Your task to perform on an android device: Go to calendar. Show me events next week Image 0: 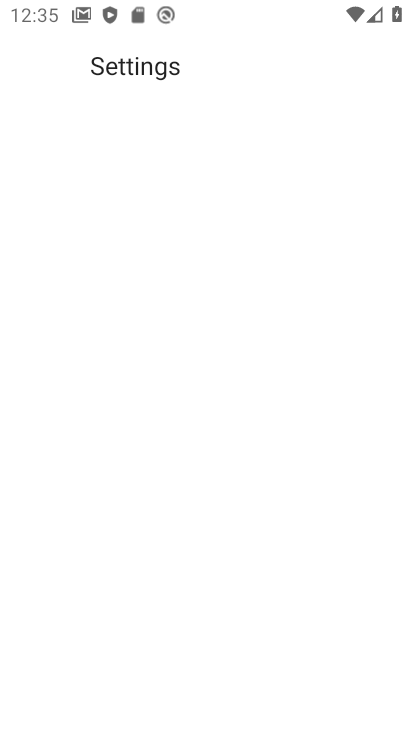
Step 0: drag from (312, 603) to (251, 147)
Your task to perform on an android device: Go to calendar. Show me events next week Image 1: 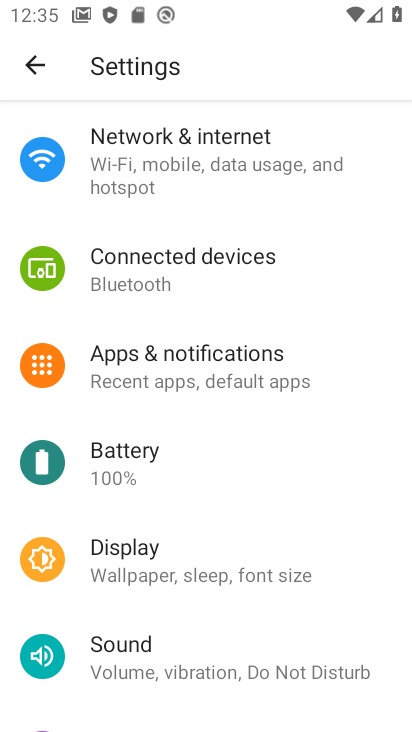
Step 1: press home button
Your task to perform on an android device: Go to calendar. Show me events next week Image 2: 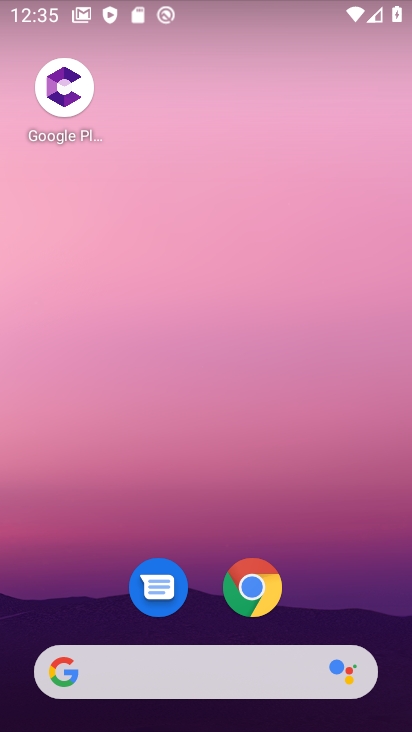
Step 2: drag from (214, 124) to (196, 61)
Your task to perform on an android device: Go to calendar. Show me events next week Image 3: 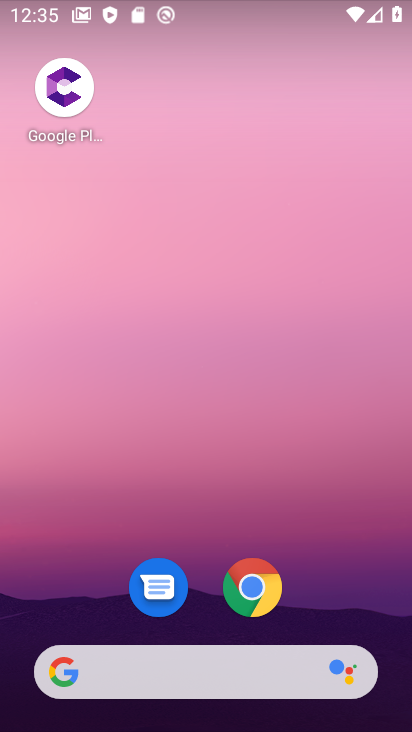
Step 3: drag from (236, 270) to (222, 221)
Your task to perform on an android device: Go to calendar. Show me events next week Image 4: 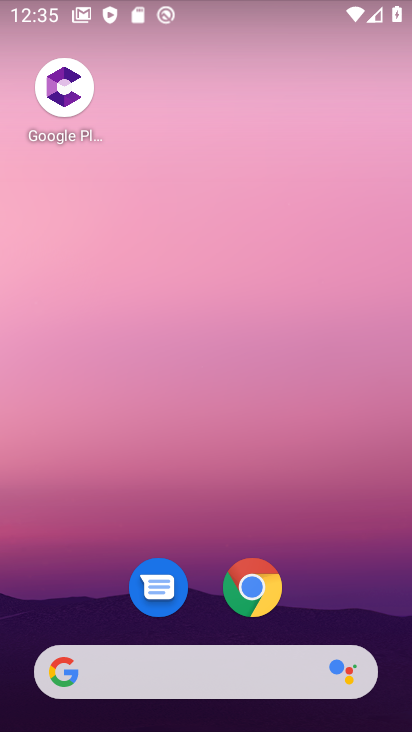
Step 4: drag from (312, 555) to (235, 18)
Your task to perform on an android device: Go to calendar. Show me events next week Image 5: 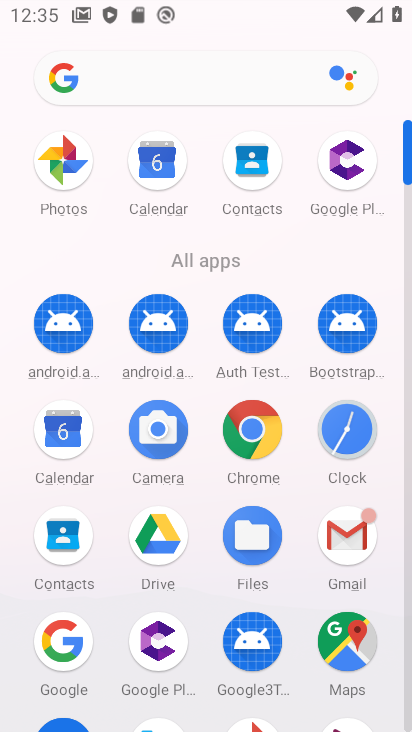
Step 5: click (66, 467)
Your task to perform on an android device: Go to calendar. Show me events next week Image 6: 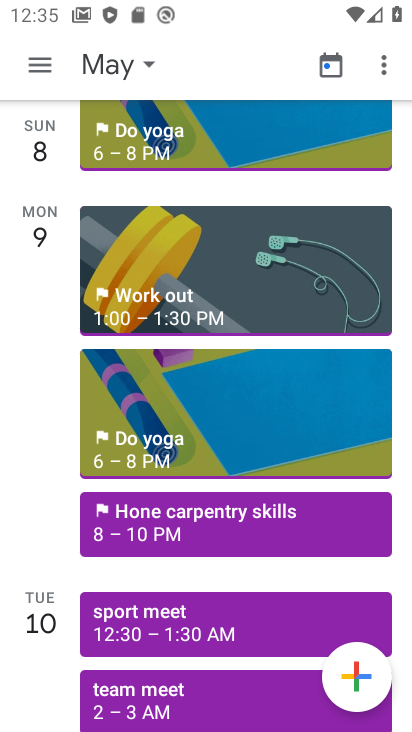
Step 6: click (40, 56)
Your task to perform on an android device: Go to calendar. Show me events next week Image 7: 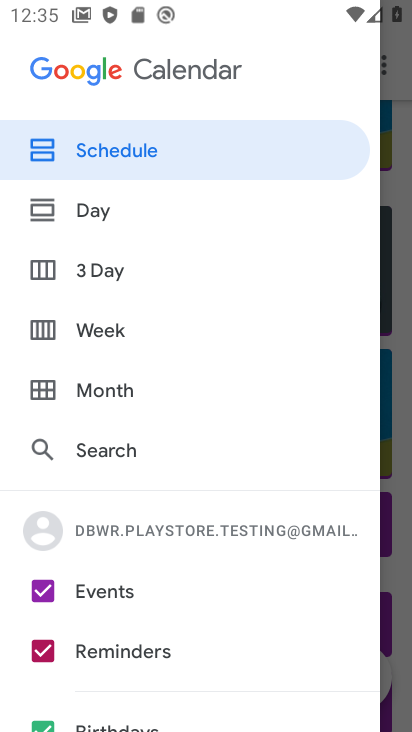
Step 7: click (121, 329)
Your task to perform on an android device: Go to calendar. Show me events next week Image 8: 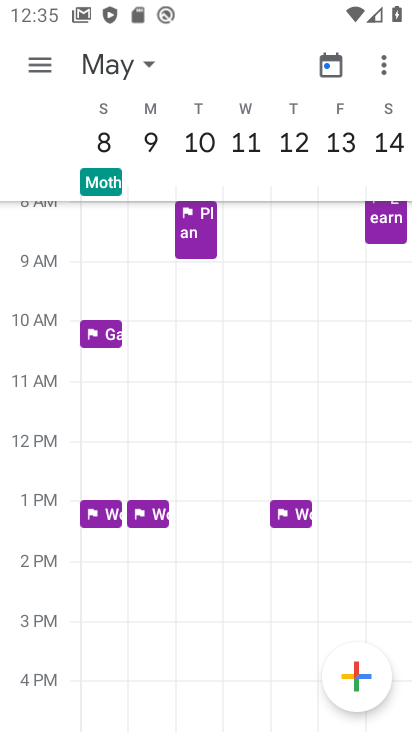
Step 8: click (111, 65)
Your task to perform on an android device: Go to calendar. Show me events next week Image 9: 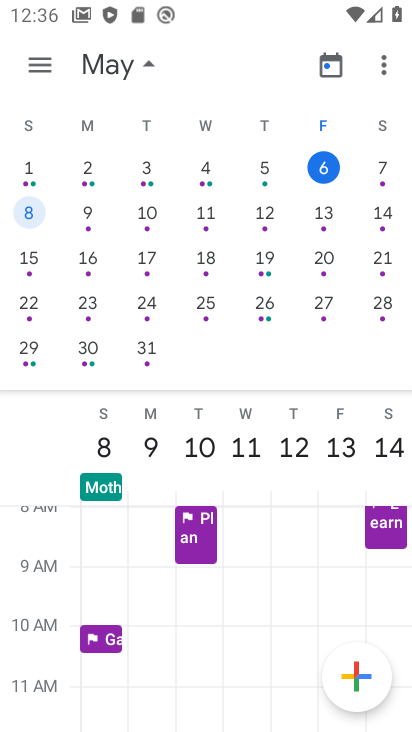
Step 9: task complete